Your task to perform on an android device: toggle notification dots Image 0: 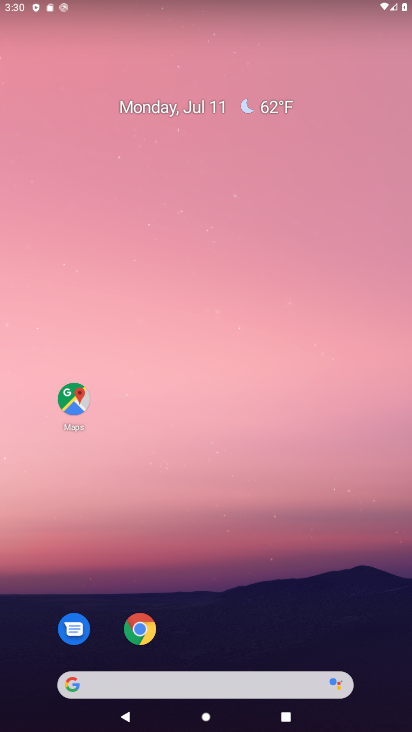
Step 0: drag from (210, 630) to (241, 141)
Your task to perform on an android device: toggle notification dots Image 1: 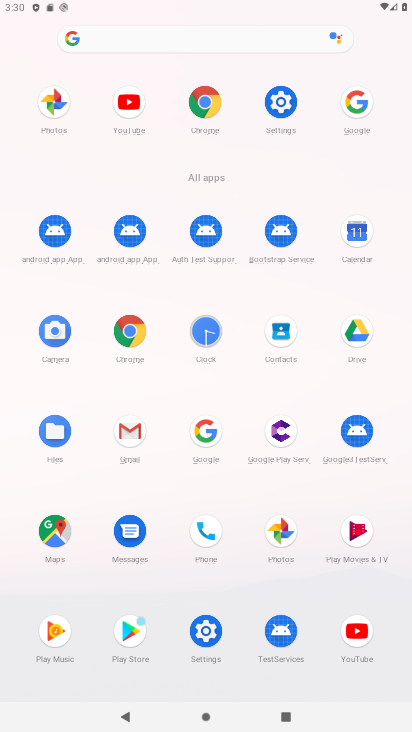
Step 1: click (279, 114)
Your task to perform on an android device: toggle notification dots Image 2: 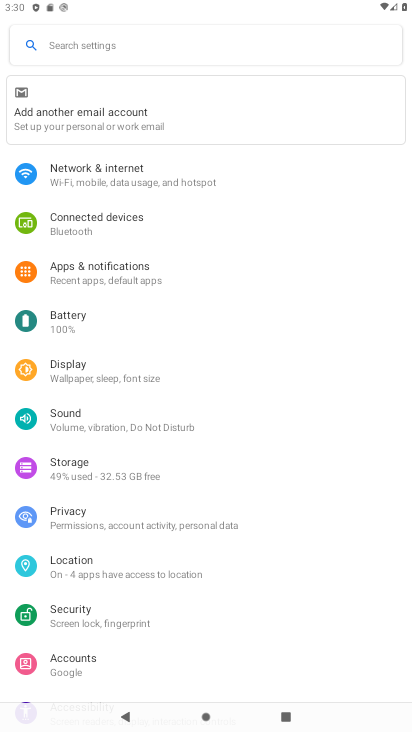
Step 2: click (184, 277)
Your task to perform on an android device: toggle notification dots Image 3: 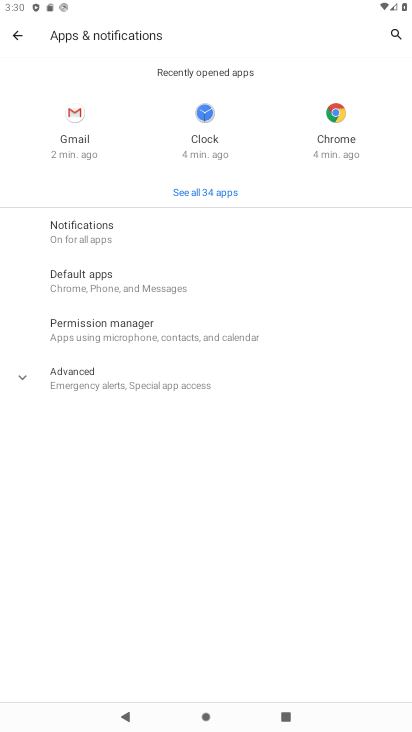
Step 3: click (147, 385)
Your task to perform on an android device: toggle notification dots Image 4: 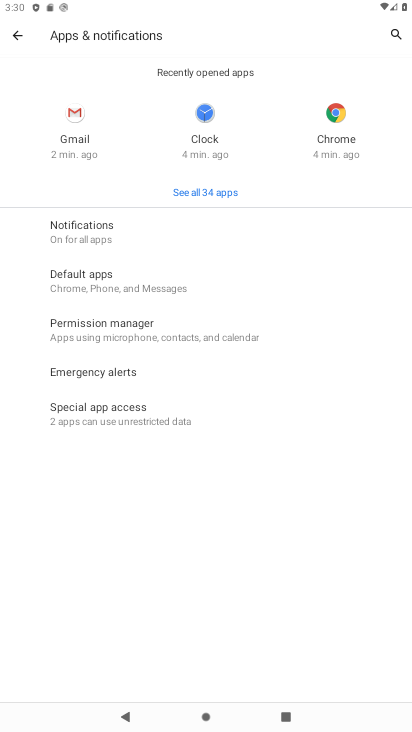
Step 4: click (168, 247)
Your task to perform on an android device: toggle notification dots Image 5: 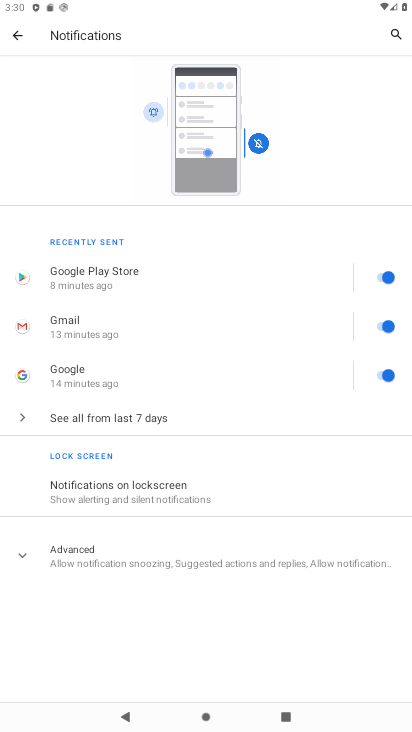
Step 5: click (158, 540)
Your task to perform on an android device: toggle notification dots Image 6: 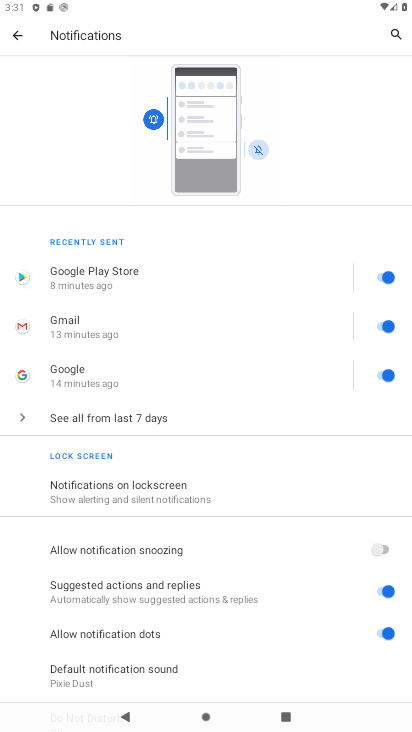
Step 6: click (383, 630)
Your task to perform on an android device: toggle notification dots Image 7: 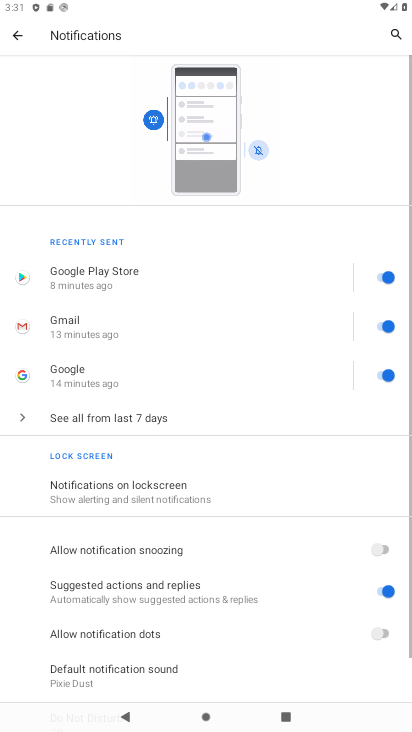
Step 7: task complete